Your task to perform on an android device: Open Amazon Image 0: 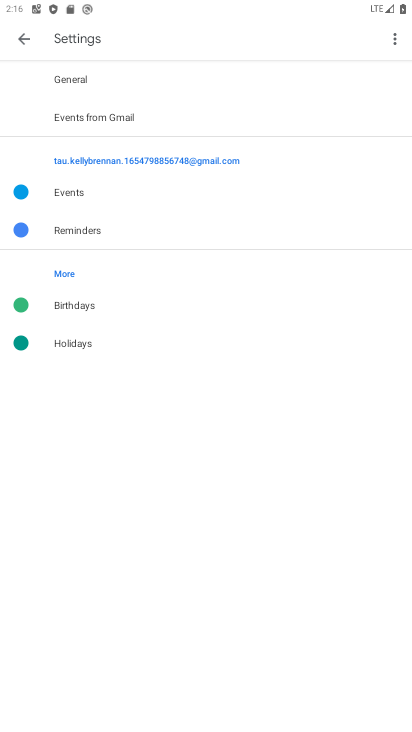
Step 0: press home button
Your task to perform on an android device: Open Amazon Image 1: 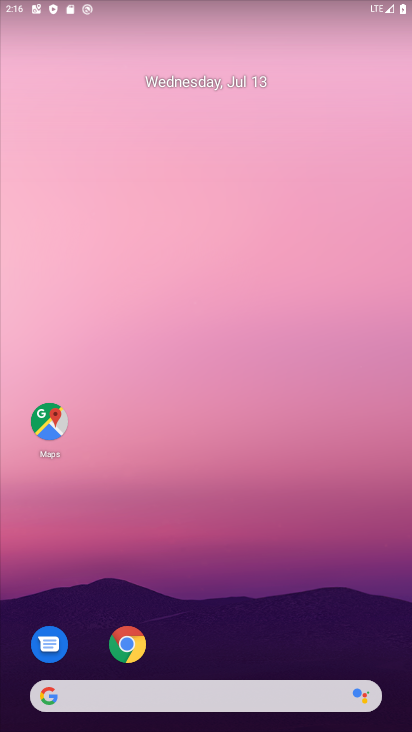
Step 1: click (125, 643)
Your task to perform on an android device: Open Amazon Image 2: 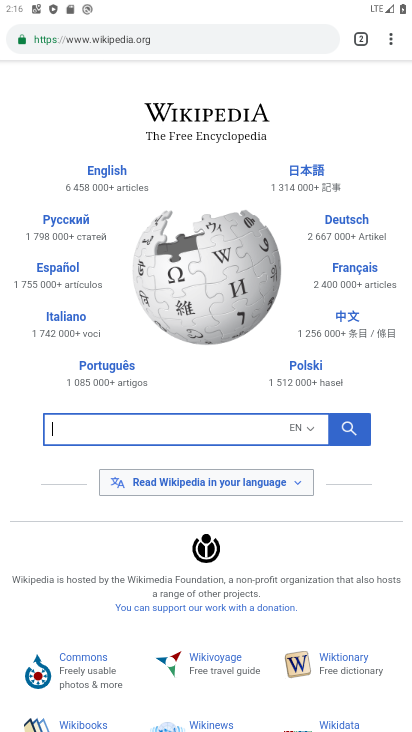
Step 2: click (208, 37)
Your task to perform on an android device: Open Amazon Image 3: 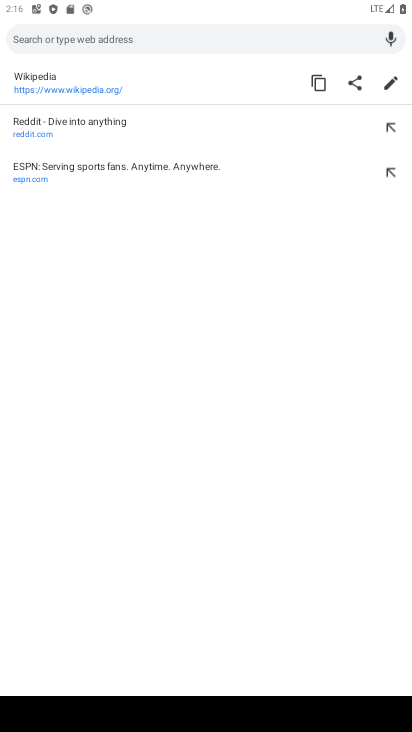
Step 3: type "amazon"
Your task to perform on an android device: Open Amazon Image 4: 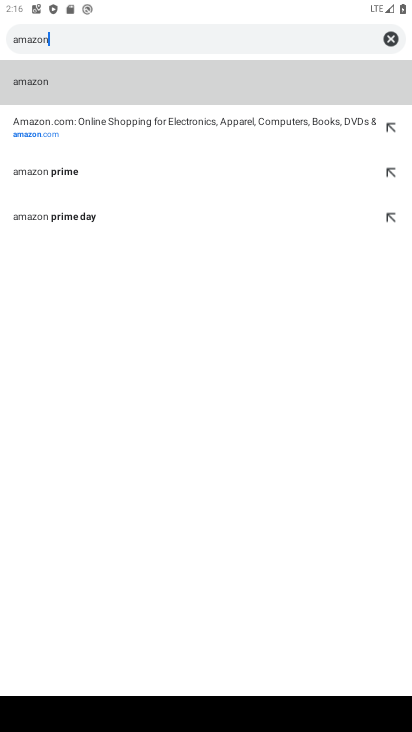
Step 4: click (32, 138)
Your task to perform on an android device: Open Amazon Image 5: 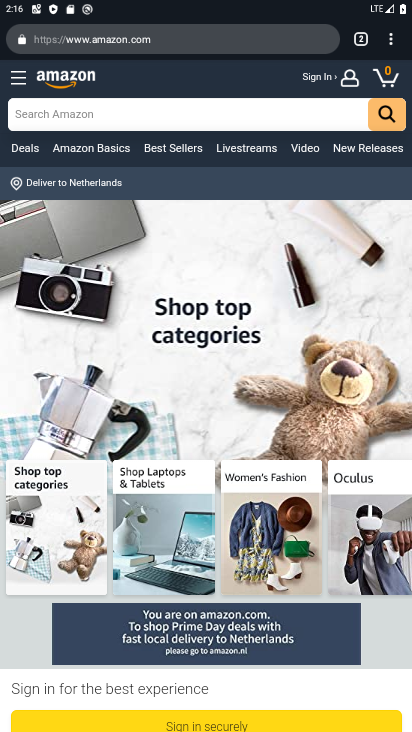
Step 5: task complete